Your task to perform on an android device: Go to privacy settings Image 0: 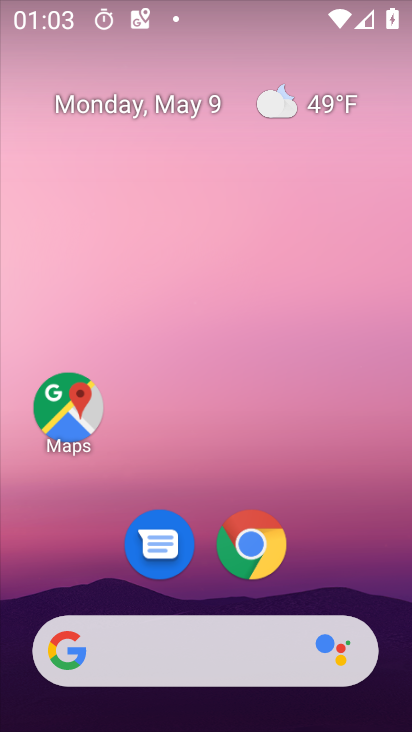
Step 0: drag from (287, 610) to (409, 210)
Your task to perform on an android device: Go to privacy settings Image 1: 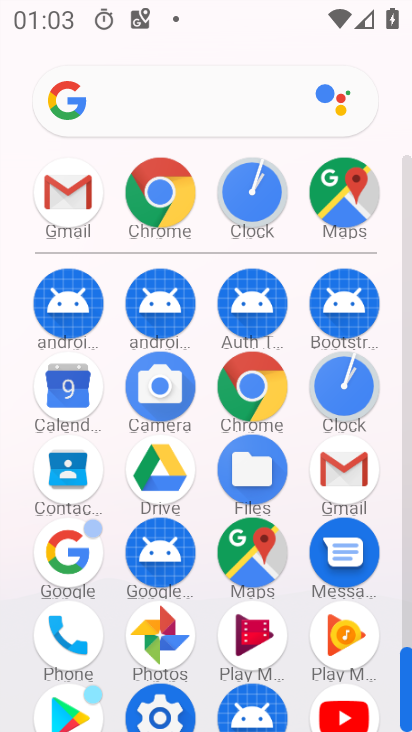
Step 1: drag from (278, 663) to (340, 191)
Your task to perform on an android device: Go to privacy settings Image 2: 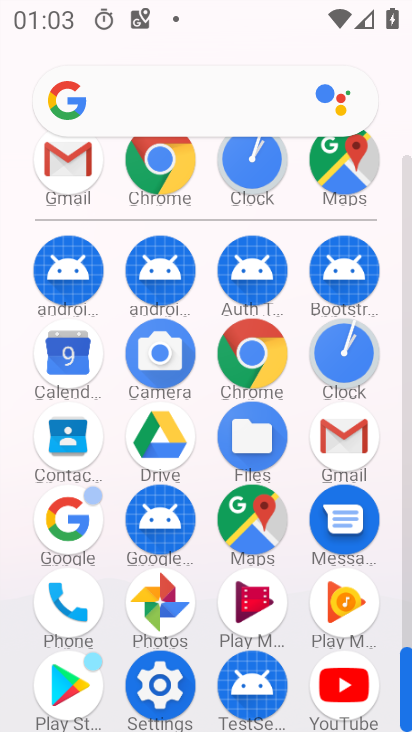
Step 2: click (167, 692)
Your task to perform on an android device: Go to privacy settings Image 3: 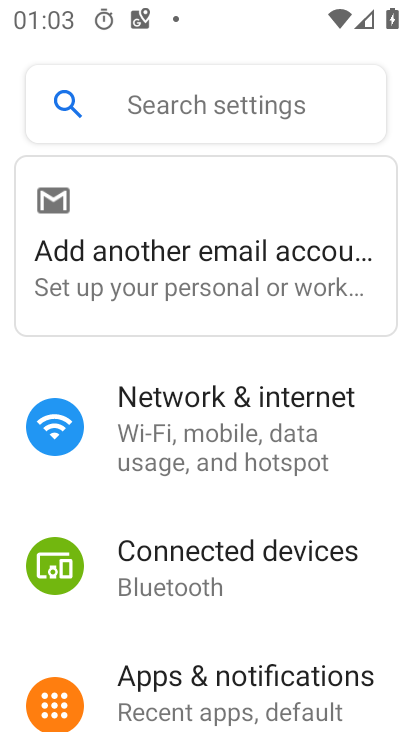
Step 3: drag from (279, 709) to (364, 169)
Your task to perform on an android device: Go to privacy settings Image 4: 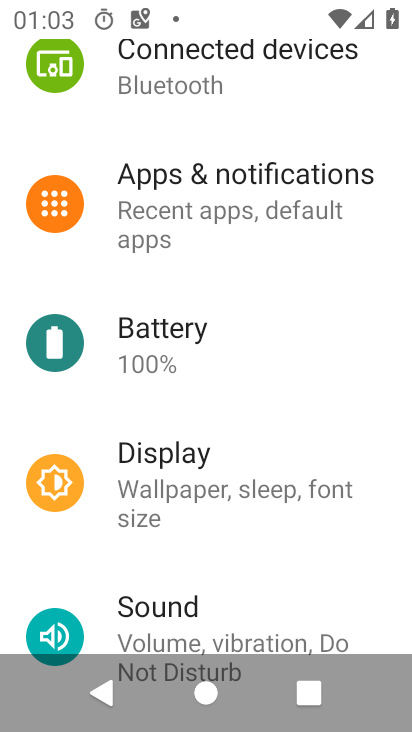
Step 4: drag from (256, 639) to (326, 228)
Your task to perform on an android device: Go to privacy settings Image 5: 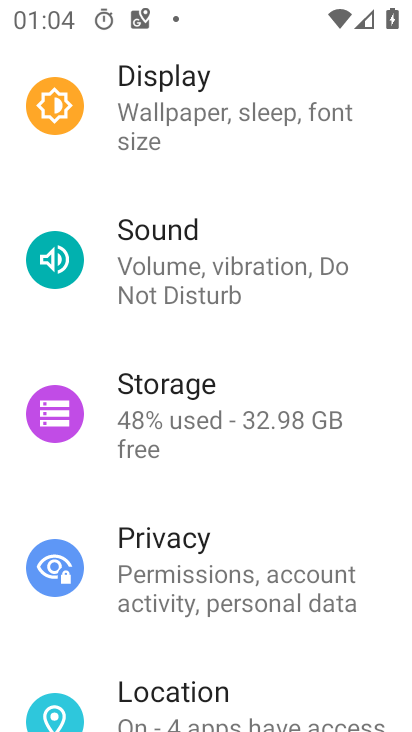
Step 5: click (259, 583)
Your task to perform on an android device: Go to privacy settings Image 6: 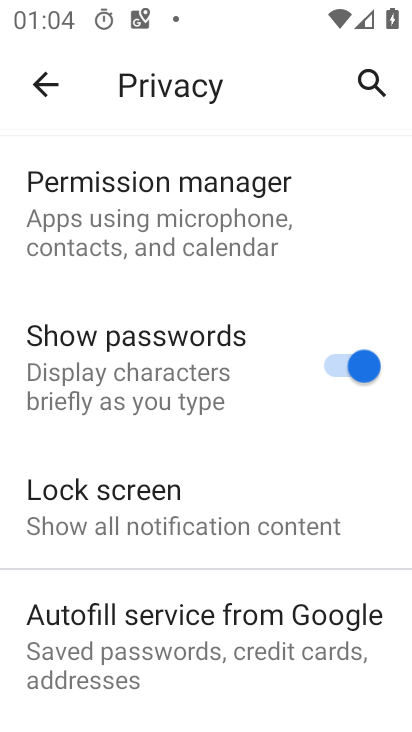
Step 6: task complete